Your task to perform on an android device: Open wifi settings Image 0: 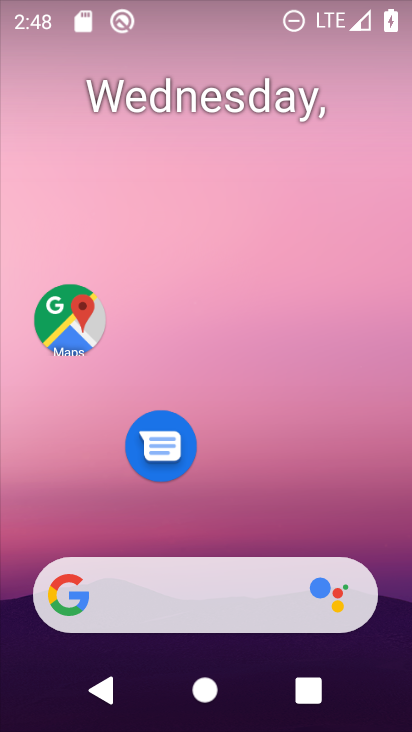
Step 0: drag from (243, 498) to (264, 16)
Your task to perform on an android device: Open wifi settings Image 1: 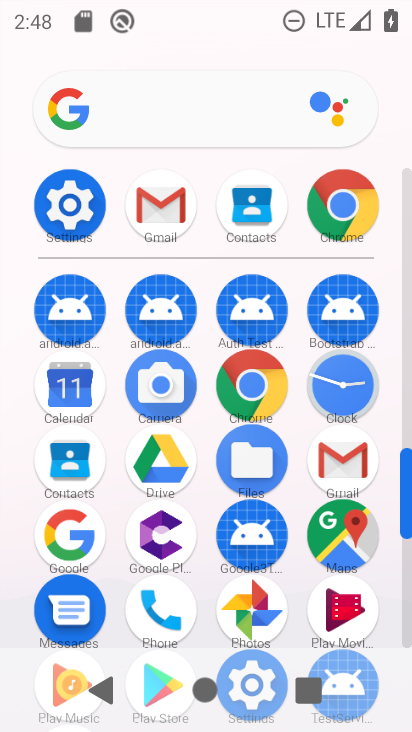
Step 1: click (96, 226)
Your task to perform on an android device: Open wifi settings Image 2: 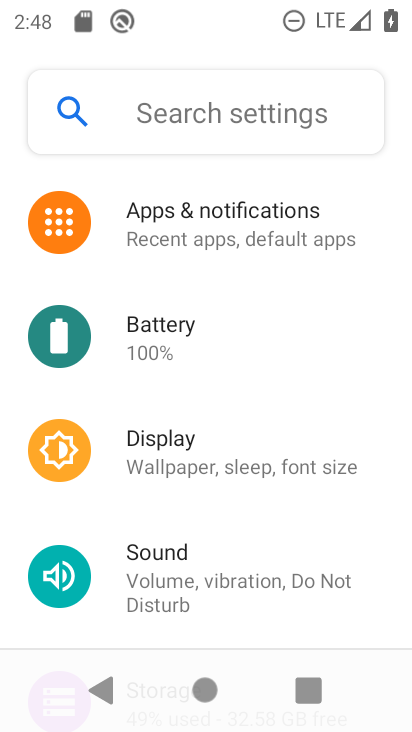
Step 2: drag from (236, 263) to (211, 507)
Your task to perform on an android device: Open wifi settings Image 3: 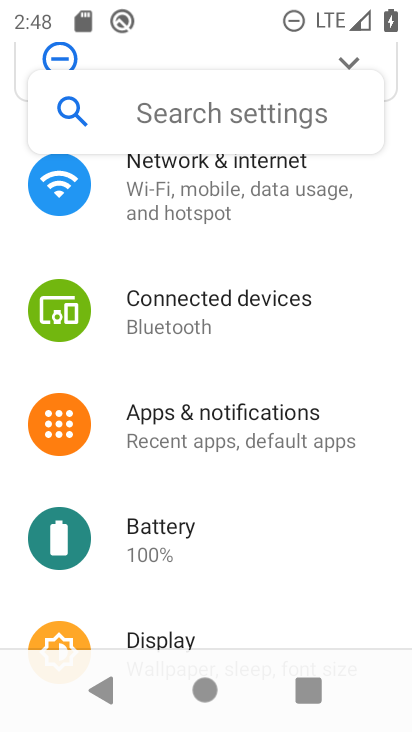
Step 3: click (242, 193)
Your task to perform on an android device: Open wifi settings Image 4: 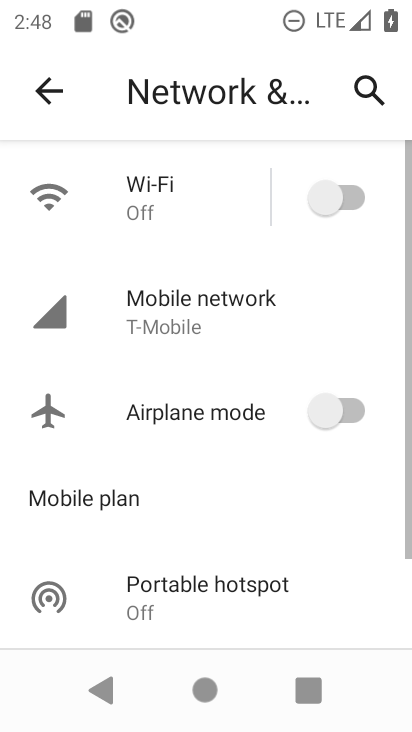
Step 4: click (202, 191)
Your task to perform on an android device: Open wifi settings Image 5: 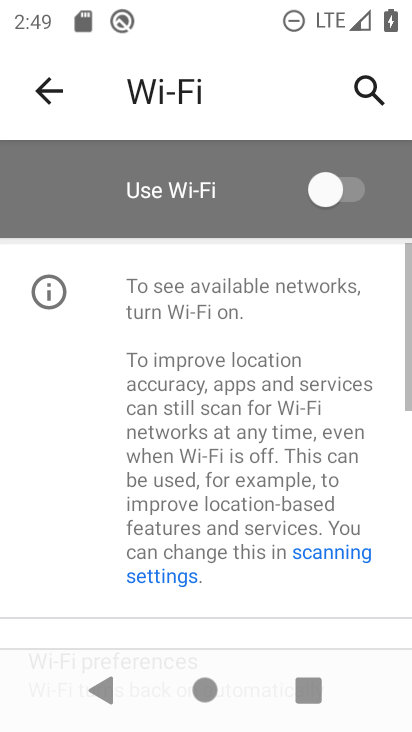
Step 5: click (336, 173)
Your task to perform on an android device: Open wifi settings Image 6: 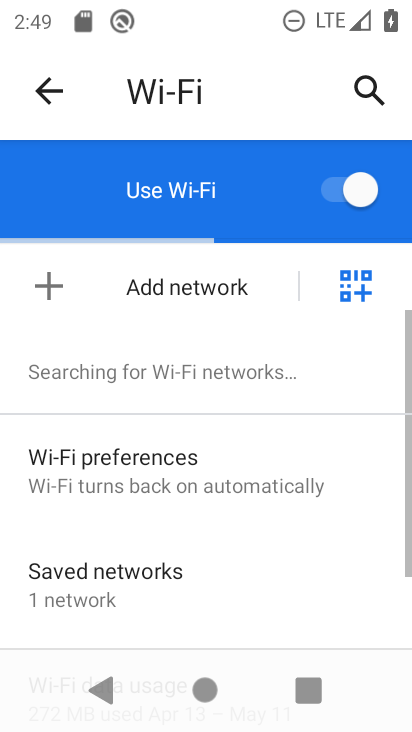
Step 6: task complete